Your task to perform on an android device: Open privacy settings Image 0: 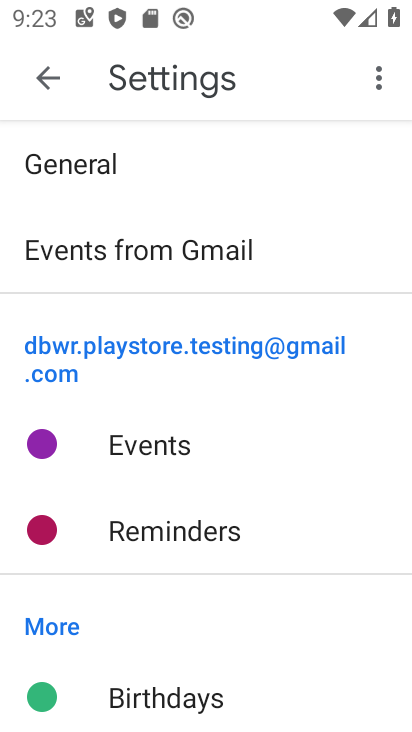
Step 0: press home button
Your task to perform on an android device: Open privacy settings Image 1: 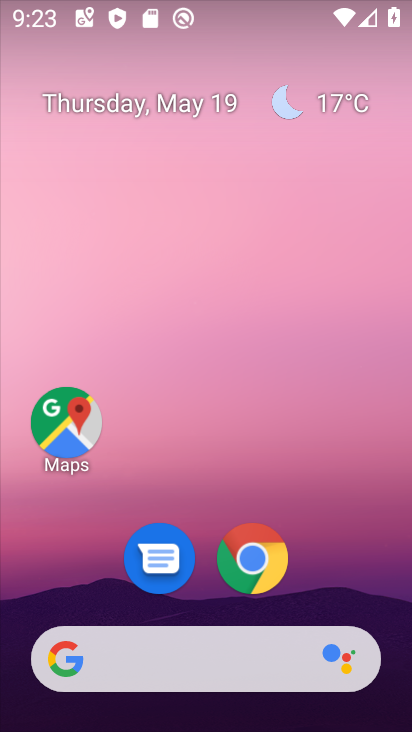
Step 1: drag from (195, 356) to (195, 43)
Your task to perform on an android device: Open privacy settings Image 2: 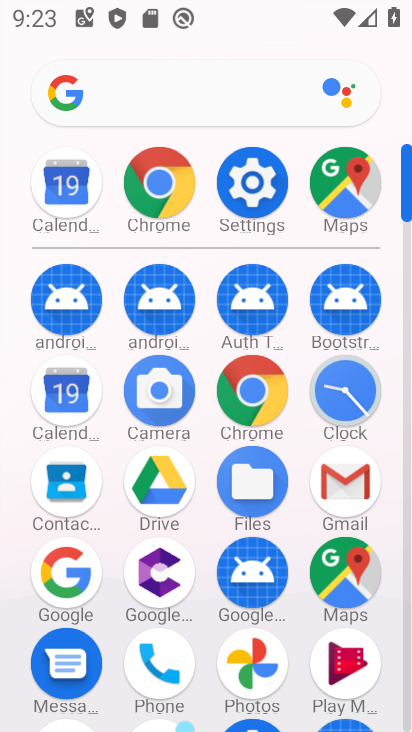
Step 2: click (253, 183)
Your task to perform on an android device: Open privacy settings Image 3: 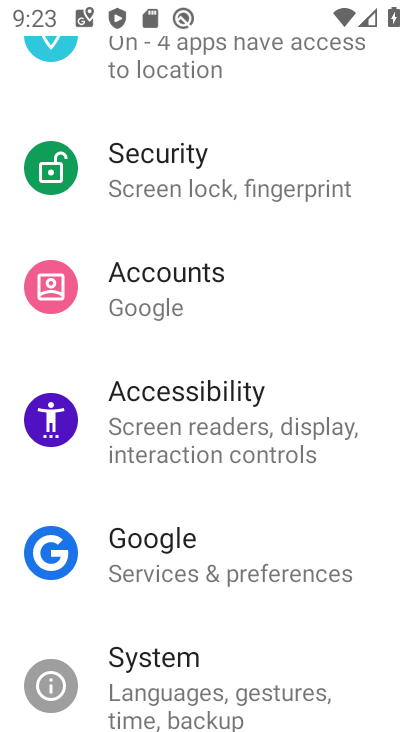
Step 3: drag from (271, 151) to (294, 487)
Your task to perform on an android device: Open privacy settings Image 4: 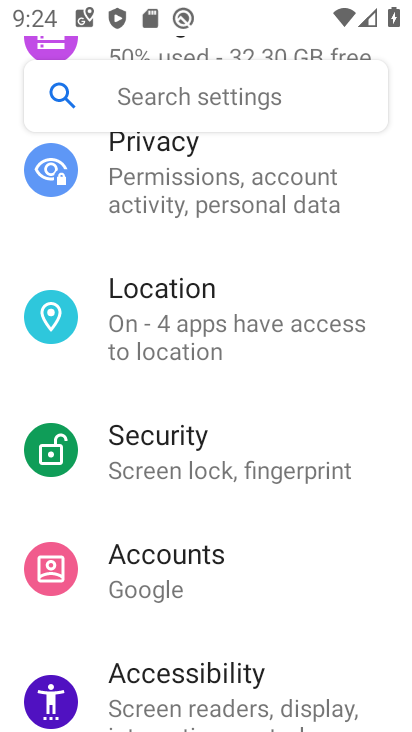
Step 4: click (181, 202)
Your task to perform on an android device: Open privacy settings Image 5: 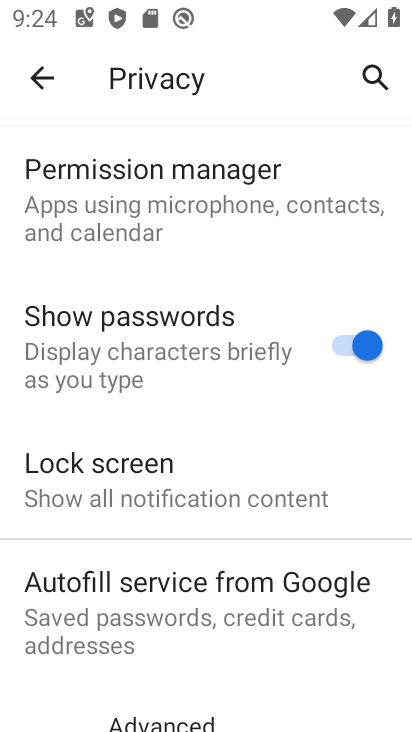
Step 5: task complete